Your task to perform on an android device: Search for the best selling video games at Target Image 0: 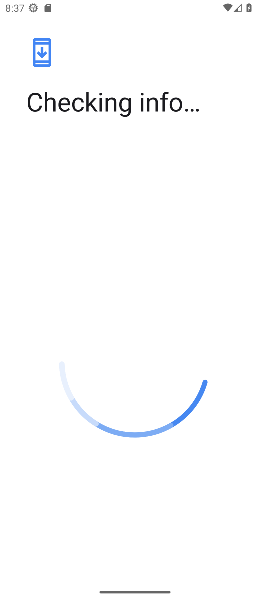
Step 0: press home button
Your task to perform on an android device: Search for the best selling video games at Target Image 1: 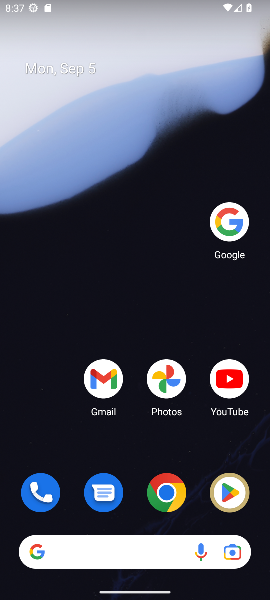
Step 1: click (228, 206)
Your task to perform on an android device: Search for the best selling video games at Target Image 2: 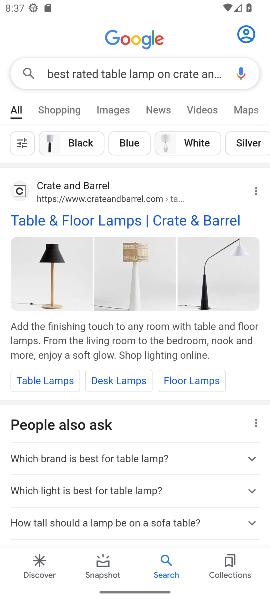
Step 2: click (181, 70)
Your task to perform on an android device: Search for the best selling video games at Target Image 3: 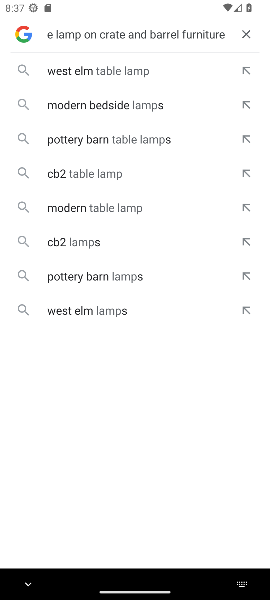
Step 3: click (245, 33)
Your task to perform on an android device: Search for the best selling video games at Target Image 4: 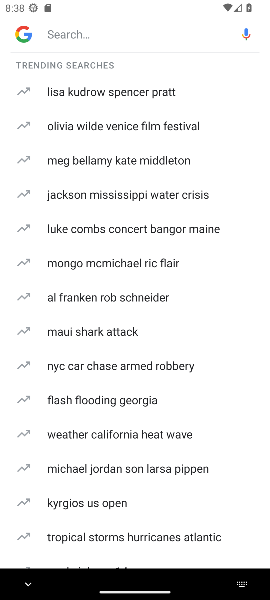
Step 4: click (136, 38)
Your task to perform on an android device: Search for the best selling video games at Target Image 5: 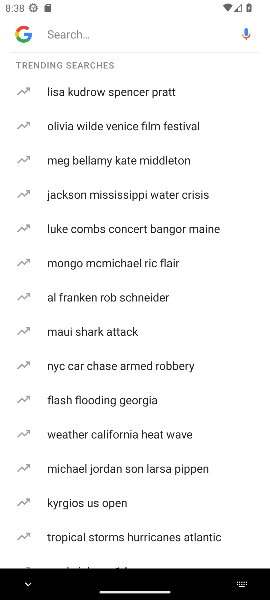
Step 5: type "best selling video games at Target "
Your task to perform on an android device: Search for the best selling video games at Target Image 6: 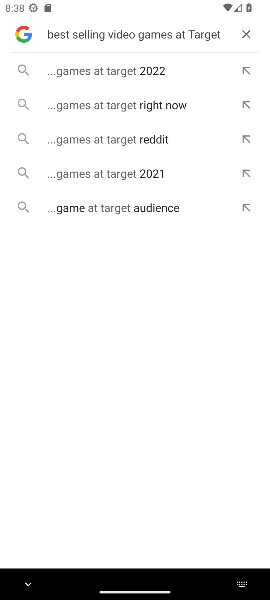
Step 6: click (124, 69)
Your task to perform on an android device: Search for the best selling video games at Target Image 7: 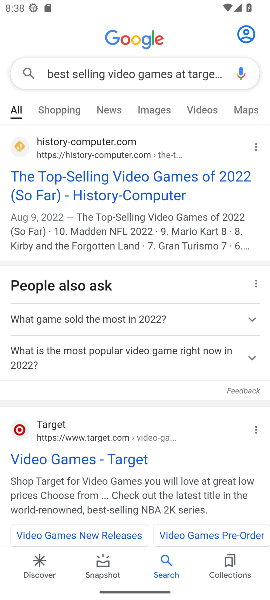
Step 7: click (146, 192)
Your task to perform on an android device: Search for the best selling video games at Target Image 8: 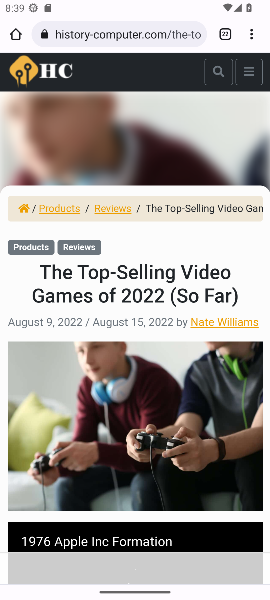
Step 8: drag from (146, 485) to (165, 133)
Your task to perform on an android device: Search for the best selling video games at Target Image 9: 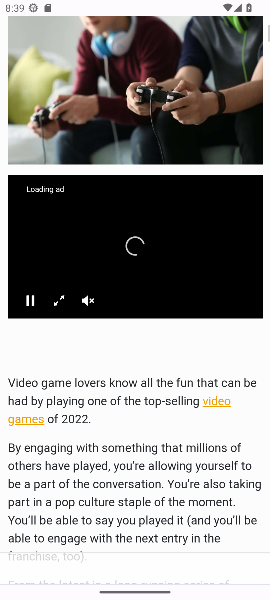
Step 9: click (146, 126)
Your task to perform on an android device: Search for the best selling video games at Target Image 10: 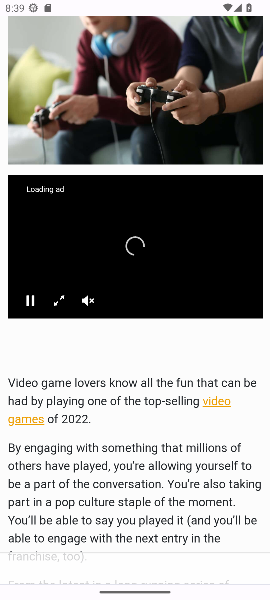
Step 10: task complete